Your task to perform on an android device: star an email in the gmail app Image 0: 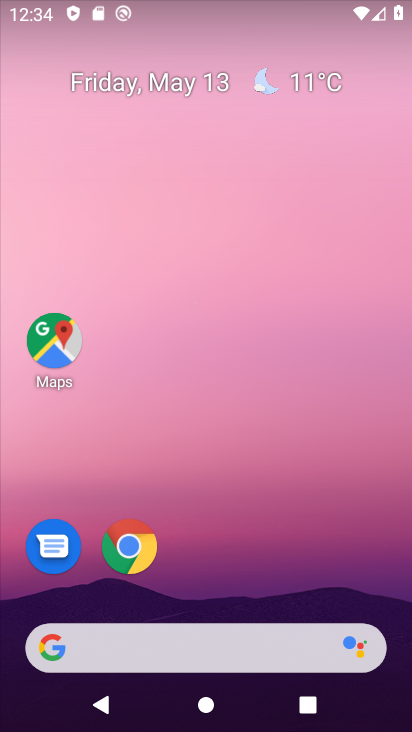
Step 0: drag from (249, 656) to (266, 382)
Your task to perform on an android device: star an email in the gmail app Image 1: 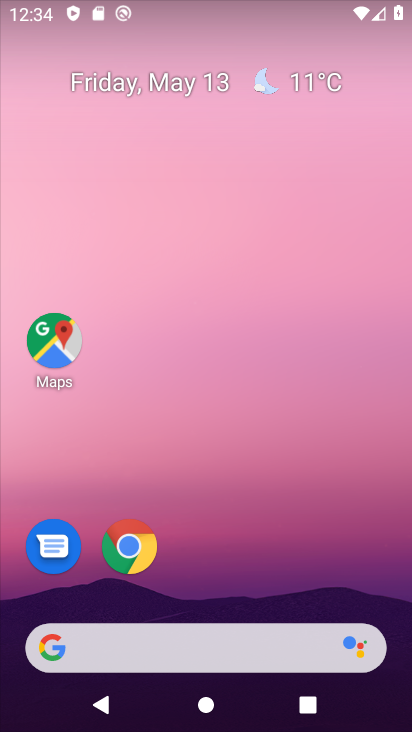
Step 1: drag from (178, 600) to (177, 228)
Your task to perform on an android device: star an email in the gmail app Image 2: 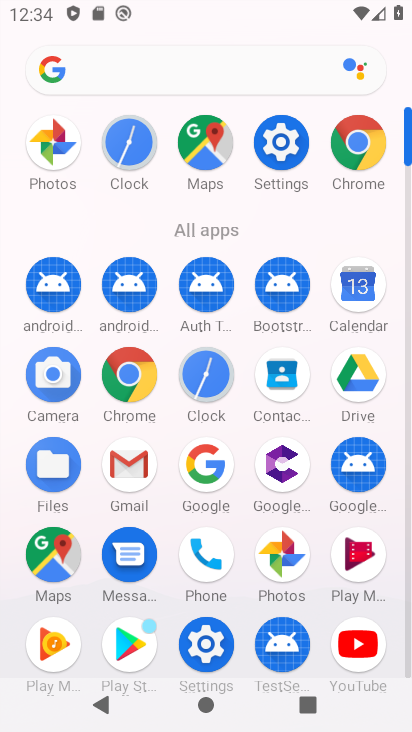
Step 2: click (129, 473)
Your task to perform on an android device: star an email in the gmail app Image 3: 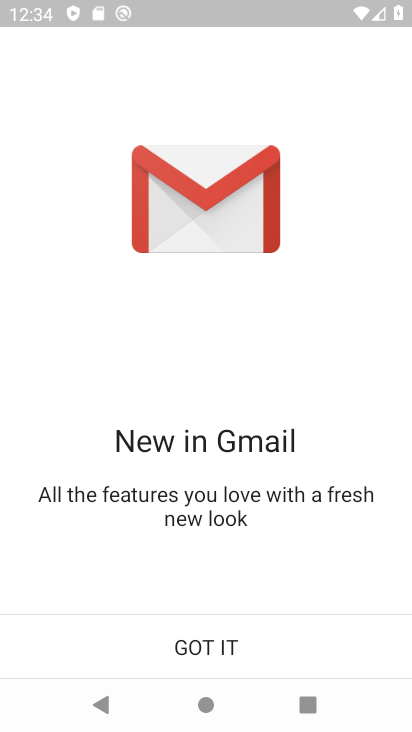
Step 3: click (226, 654)
Your task to perform on an android device: star an email in the gmail app Image 4: 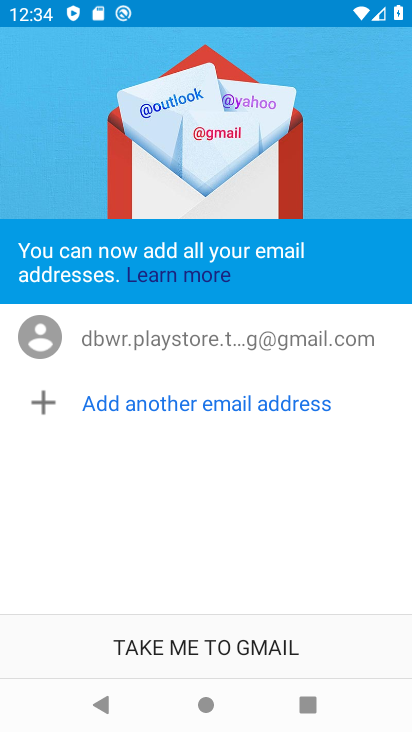
Step 4: click (287, 651)
Your task to perform on an android device: star an email in the gmail app Image 5: 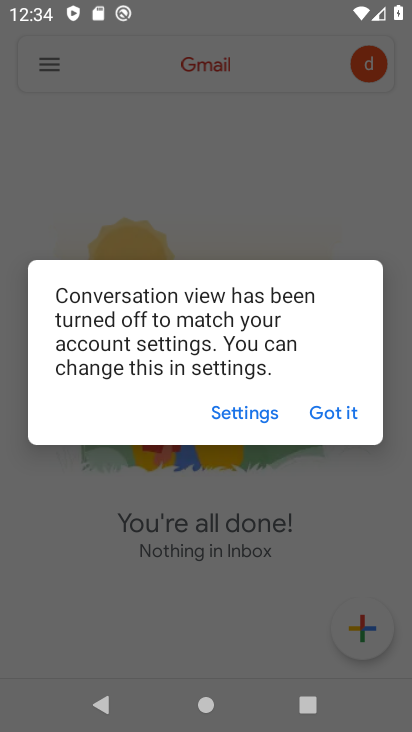
Step 5: click (343, 428)
Your task to perform on an android device: star an email in the gmail app Image 6: 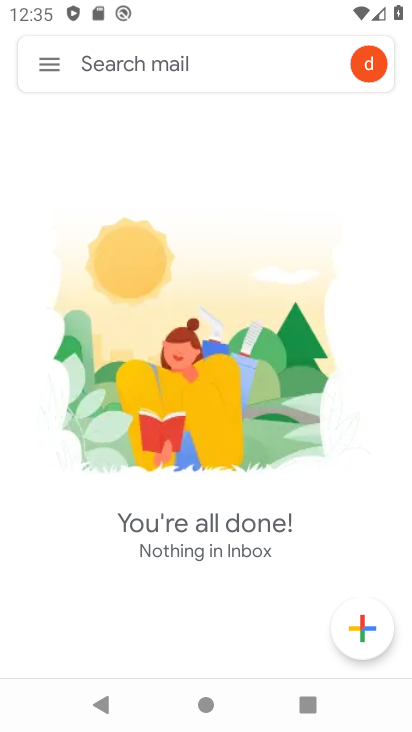
Step 6: click (50, 60)
Your task to perform on an android device: star an email in the gmail app Image 7: 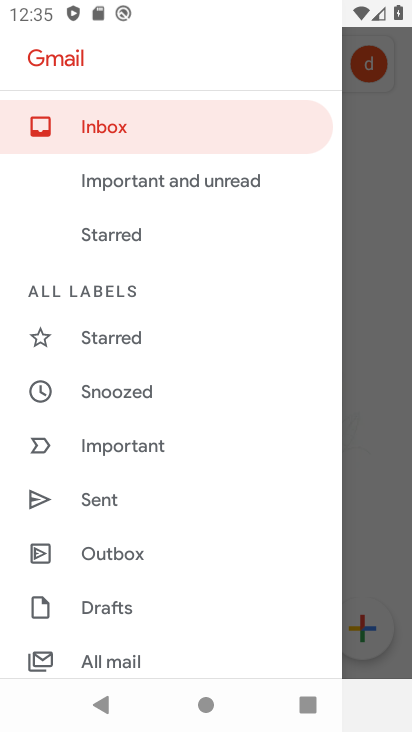
Step 7: drag from (137, 558) to (200, 307)
Your task to perform on an android device: star an email in the gmail app Image 8: 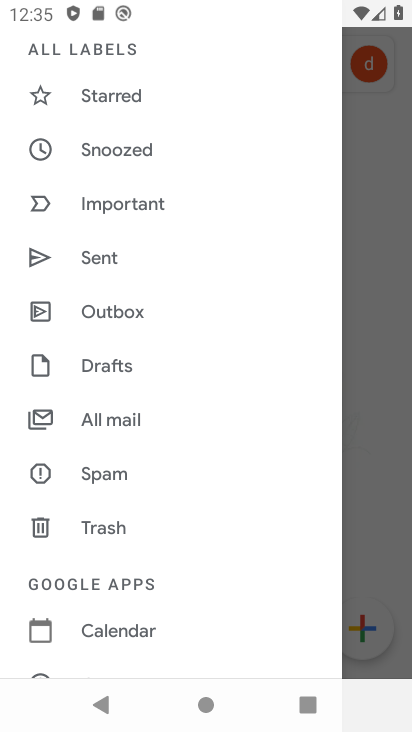
Step 8: click (136, 419)
Your task to perform on an android device: star an email in the gmail app Image 9: 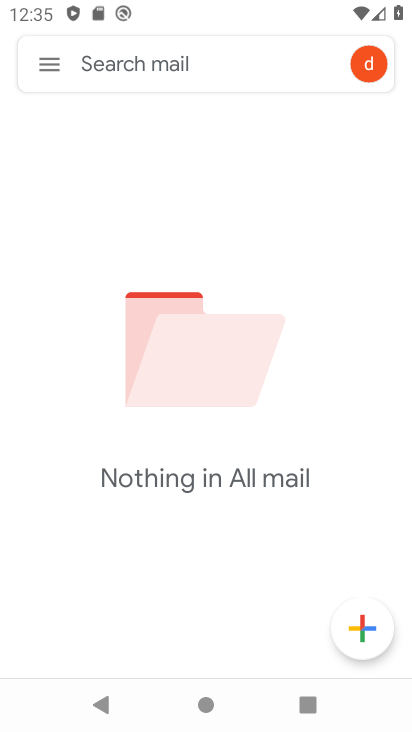
Step 9: task complete